Your task to perform on an android device: Open Amazon Image 0: 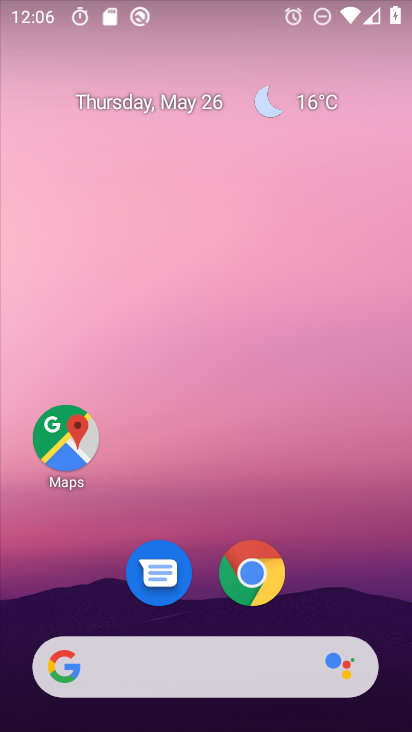
Step 0: click (260, 583)
Your task to perform on an android device: Open Amazon Image 1: 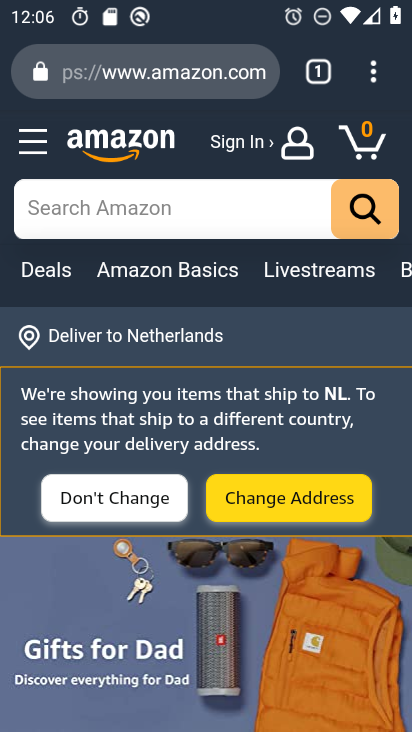
Step 1: task complete